Your task to perform on an android device: check data usage Image 0: 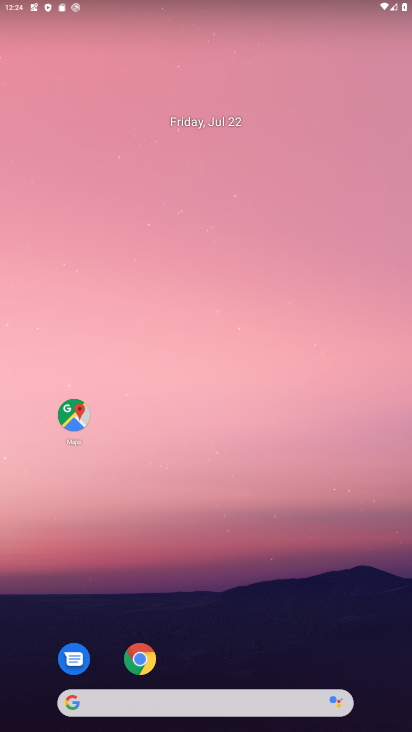
Step 0: drag from (181, 565) to (183, 239)
Your task to perform on an android device: check data usage Image 1: 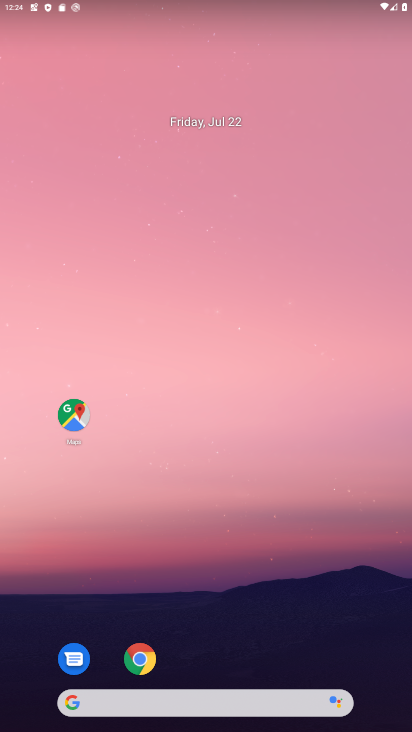
Step 1: drag from (217, 230) to (233, 161)
Your task to perform on an android device: check data usage Image 2: 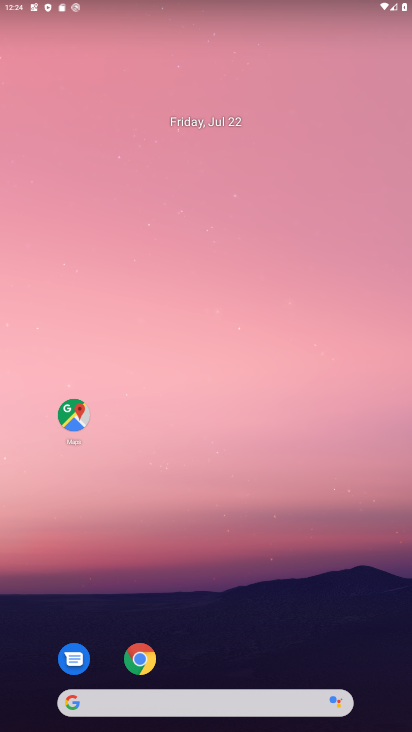
Step 2: drag from (192, 552) to (158, 6)
Your task to perform on an android device: check data usage Image 3: 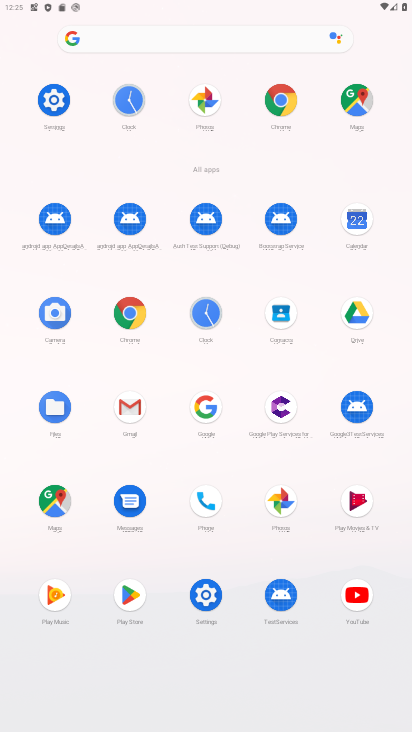
Step 3: click (54, 111)
Your task to perform on an android device: check data usage Image 4: 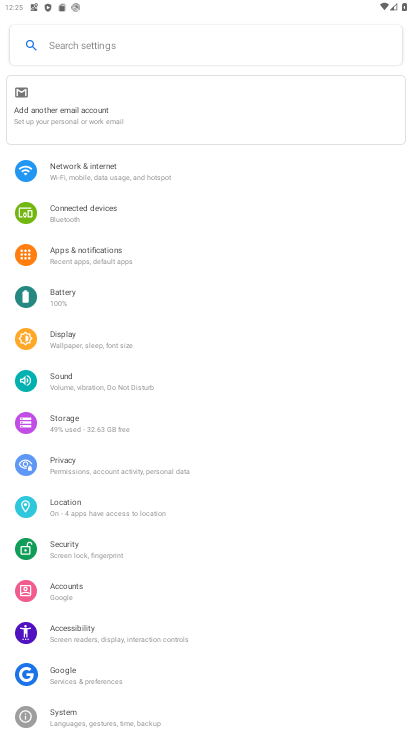
Step 4: click (73, 166)
Your task to perform on an android device: check data usage Image 5: 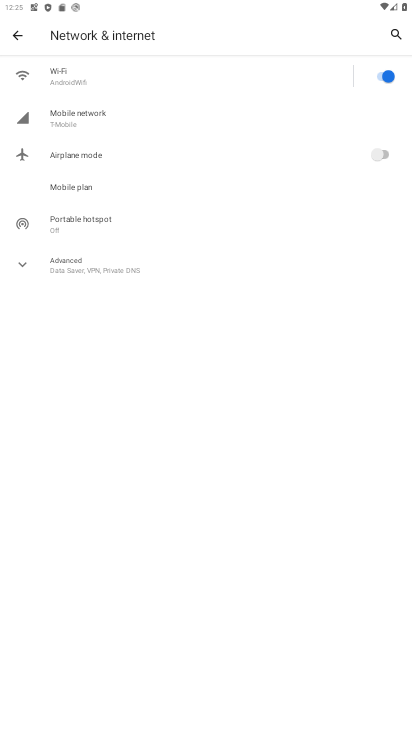
Step 5: click (66, 116)
Your task to perform on an android device: check data usage Image 6: 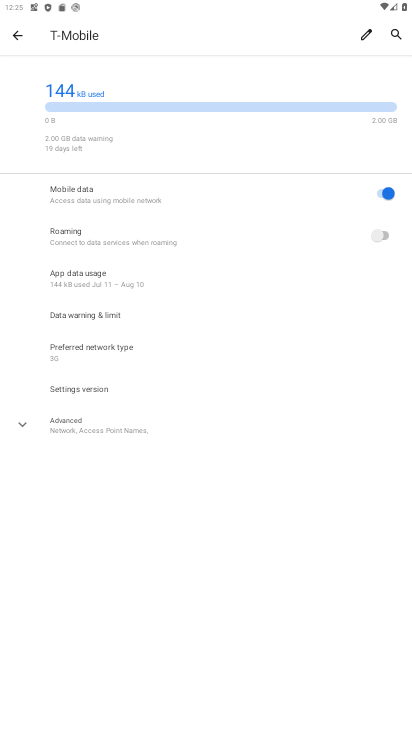
Step 6: task complete